Your task to perform on an android device: turn off javascript in the chrome app Image 0: 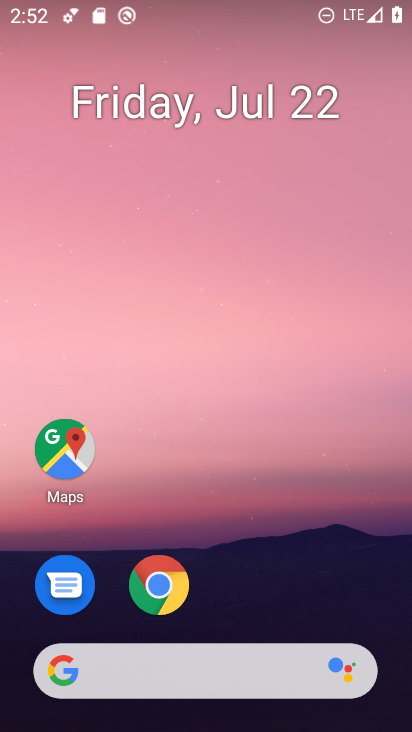
Step 0: drag from (231, 608) to (217, 536)
Your task to perform on an android device: turn off javascript in the chrome app Image 1: 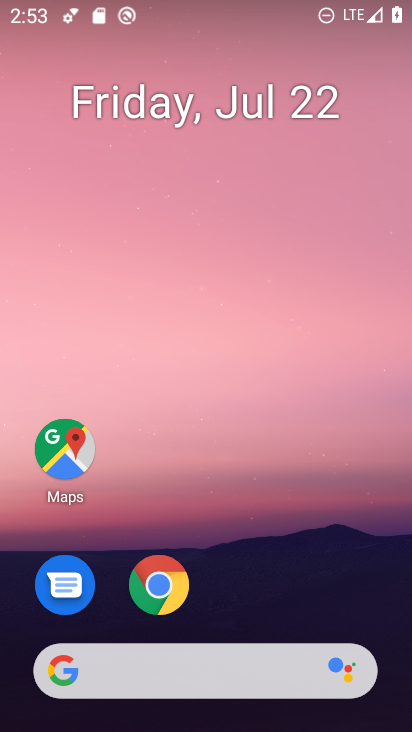
Step 1: click (154, 575)
Your task to perform on an android device: turn off javascript in the chrome app Image 2: 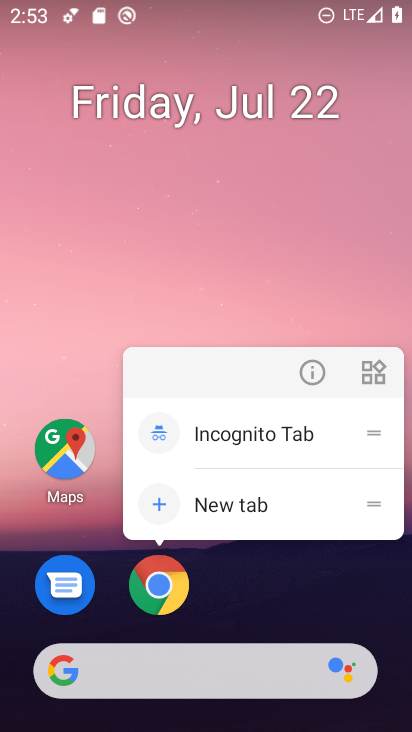
Step 2: click (154, 570)
Your task to perform on an android device: turn off javascript in the chrome app Image 3: 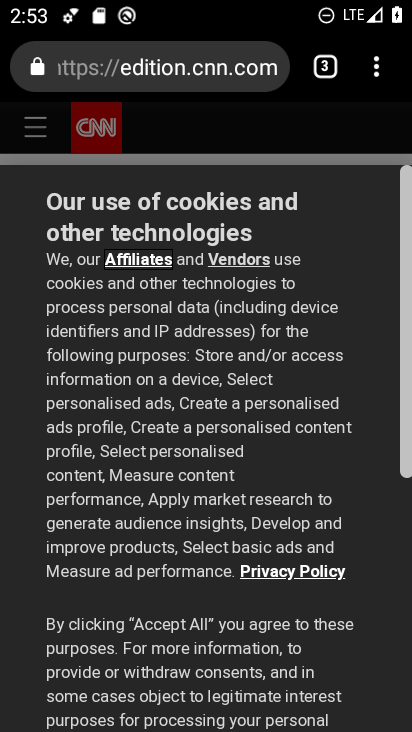
Step 3: press back button
Your task to perform on an android device: turn off javascript in the chrome app Image 4: 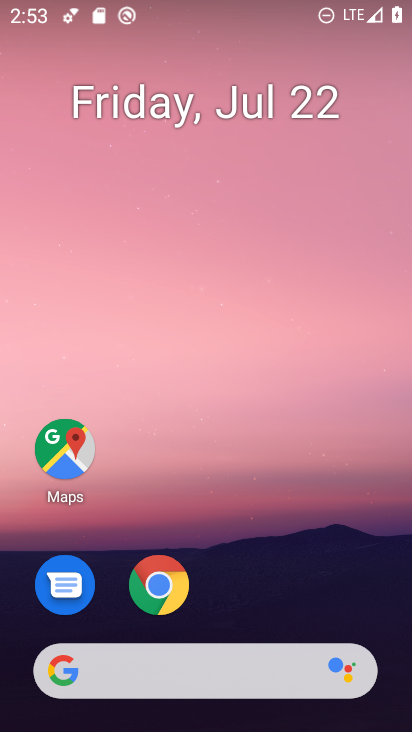
Step 4: click (170, 584)
Your task to perform on an android device: turn off javascript in the chrome app Image 5: 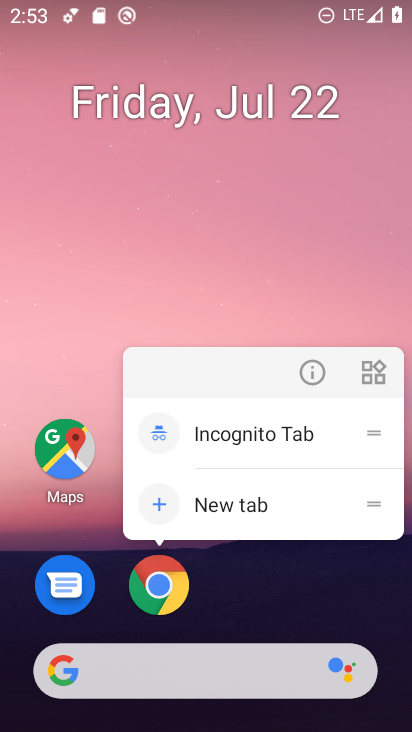
Step 5: click (170, 584)
Your task to perform on an android device: turn off javascript in the chrome app Image 6: 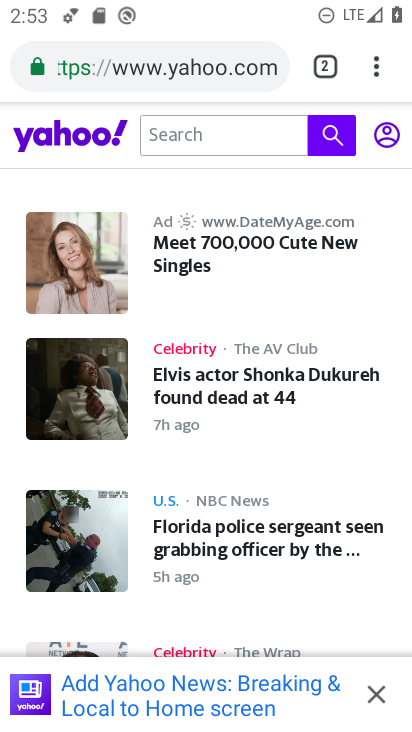
Step 6: click (373, 75)
Your task to perform on an android device: turn off javascript in the chrome app Image 7: 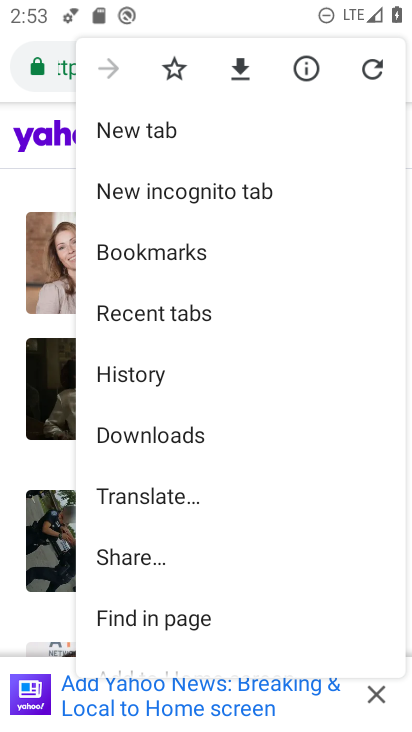
Step 7: drag from (266, 545) to (313, 116)
Your task to perform on an android device: turn off javascript in the chrome app Image 8: 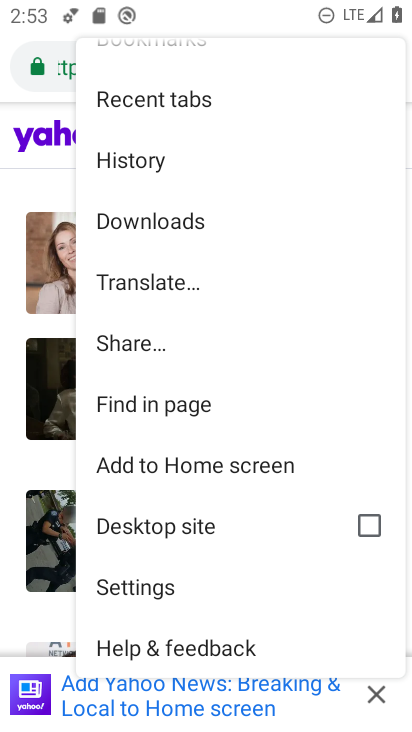
Step 8: click (168, 589)
Your task to perform on an android device: turn off javascript in the chrome app Image 9: 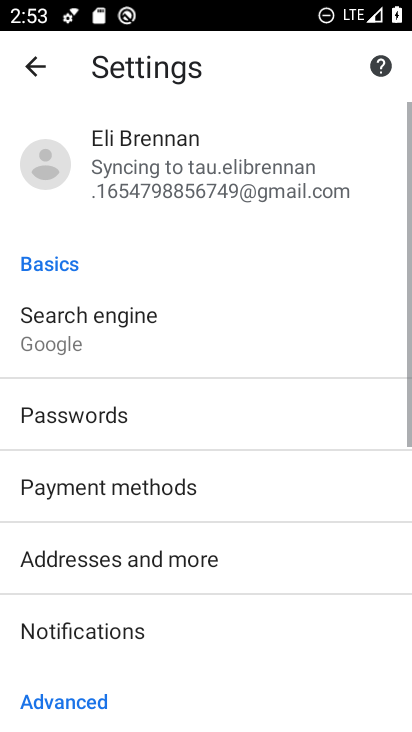
Step 9: drag from (261, 466) to (315, 156)
Your task to perform on an android device: turn off javascript in the chrome app Image 10: 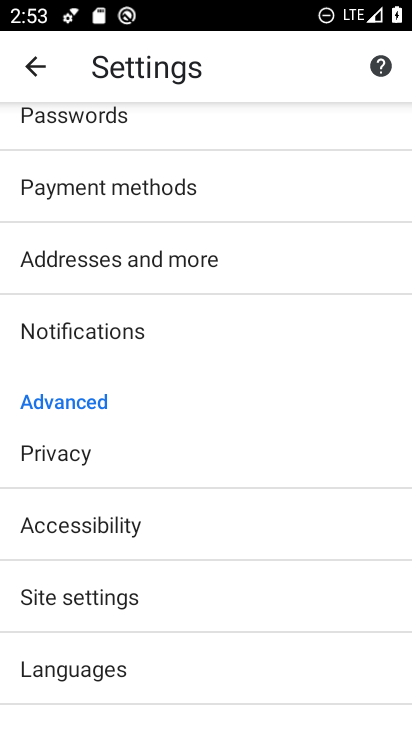
Step 10: click (129, 592)
Your task to perform on an android device: turn off javascript in the chrome app Image 11: 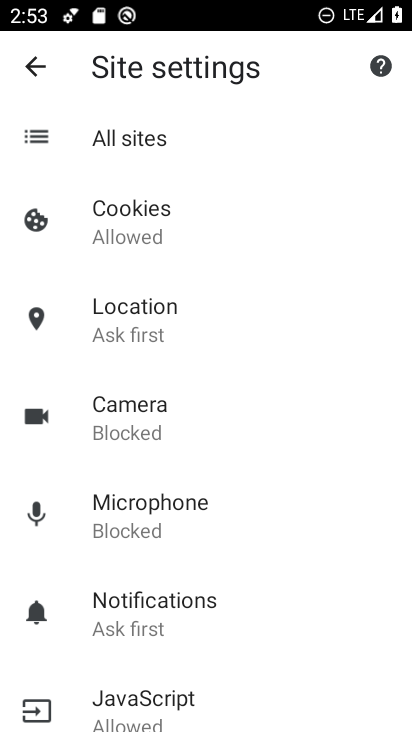
Step 11: drag from (244, 684) to (212, 446)
Your task to perform on an android device: turn off javascript in the chrome app Image 12: 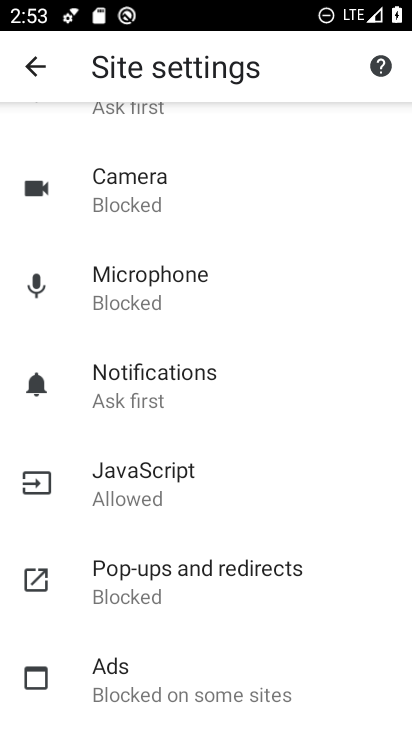
Step 12: click (165, 478)
Your task to perform on an android device: turn off javascript in the chrome app Image 13: 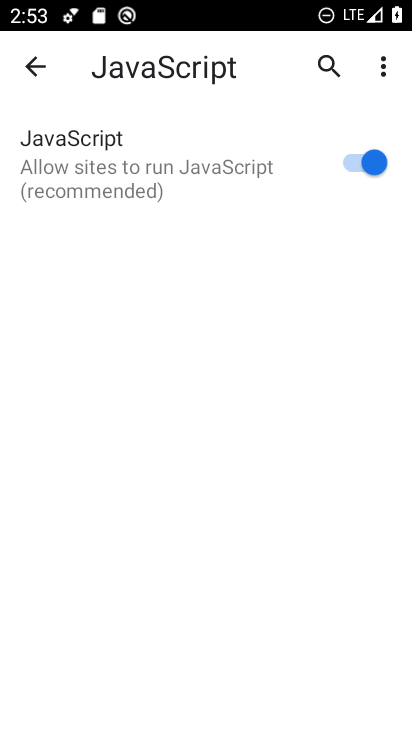
Step 13: click (369, 161)
Your task to perform on an android device: turn off javascript in the chrome app Image 14: 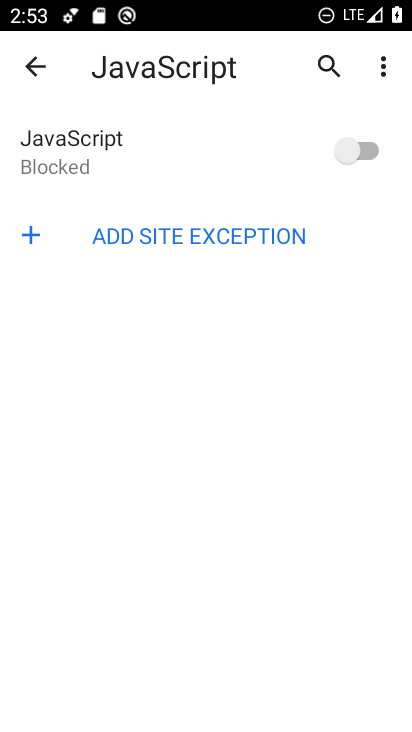
Step 14: task complete